Your task to perform on an android device: change the clock display to digital Image 0: 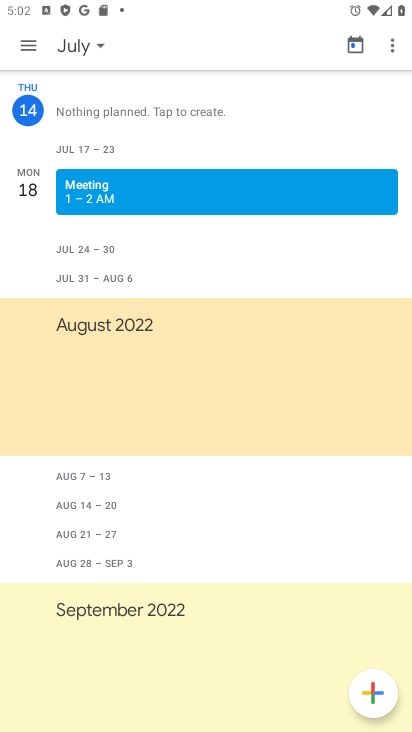
Step 0: press home button
Your task to perform on an android device: change the clock display to digital Image 1: 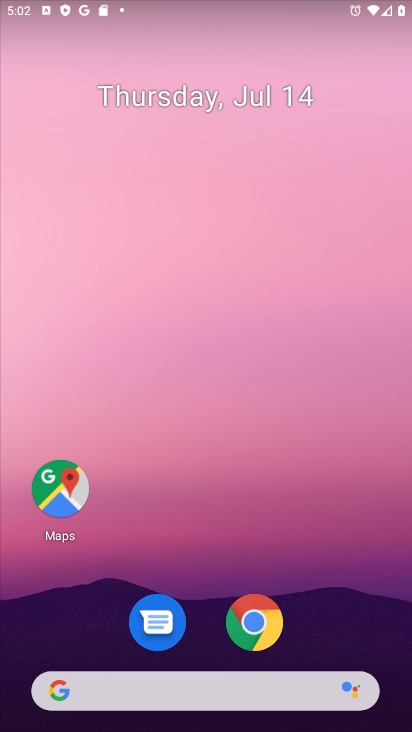
Step 1: drag from (212, 652) to (282, 56)
Your task to perform on an android device: change the clock display to digital Image 2: 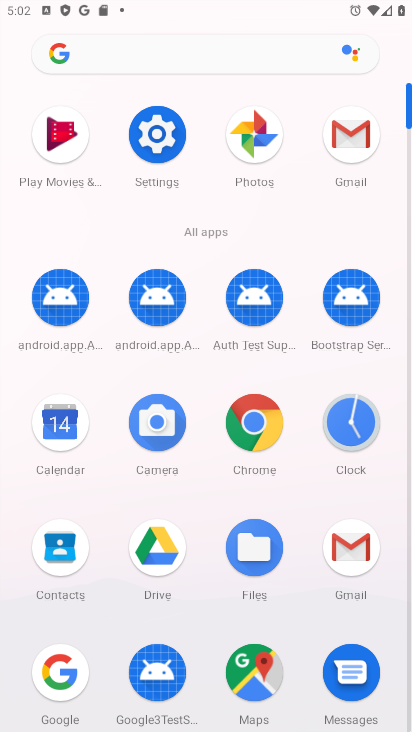
Step 2: click (369, 403)
Your task to perform on an android device: change the clock display to digital Image 3: 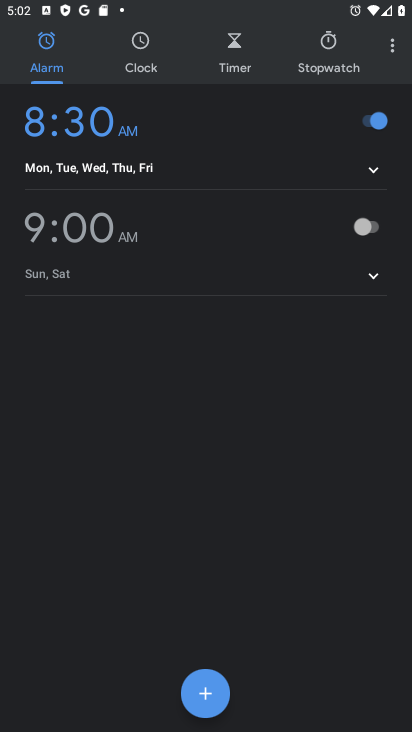
Step 3: click (402, 43)
Your task to perform on an android device: change the clock display to digital Image 4: 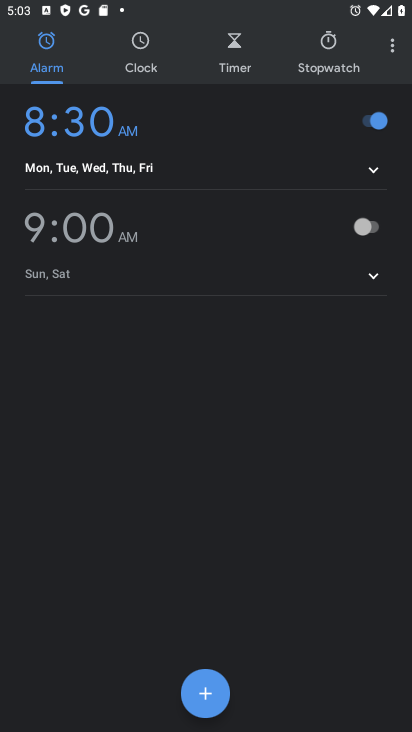
Step 4: click (402, 43)
Your task to perform on an android device: change the clock display to digital Image 5: 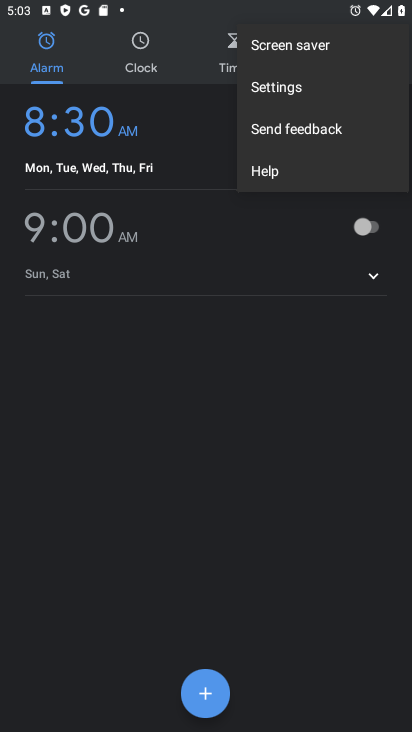
Step 5: click (343, 86)
Your task to perform on an android device: change the clock display to digital Image 6: 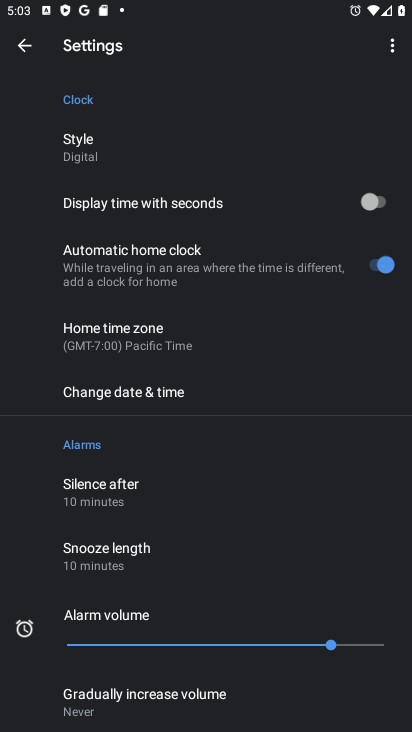
Step 6: task complete